Your task to perform on an android device: toggle pop-ups in chrome Image 0: 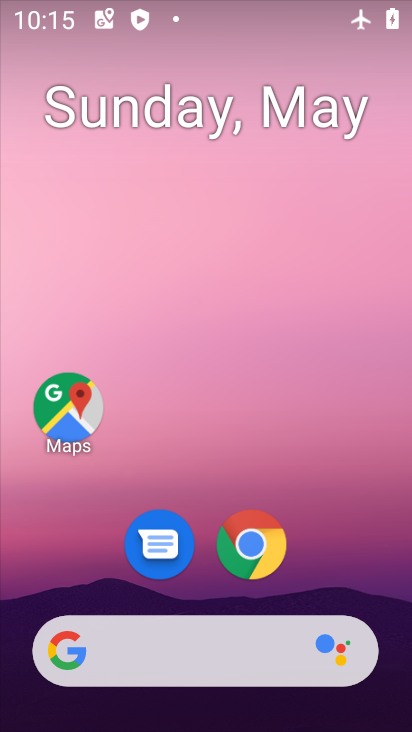
Step 0: drag from (330, 606) to (312, 274)
Your task to perform on an android device: toggle pop-ups in chrome Image 1: 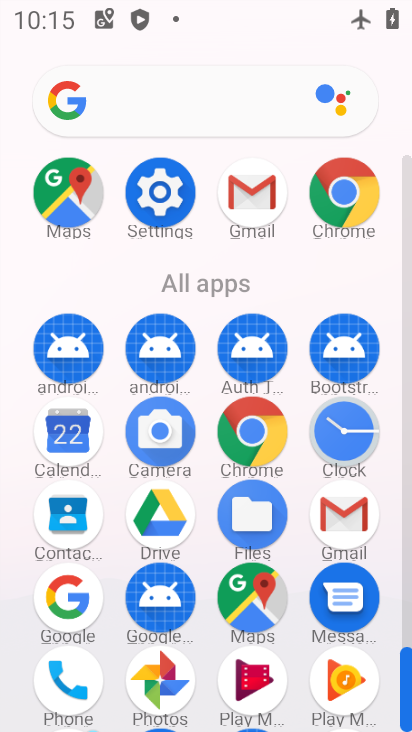
Step 1: click (137, 193)
Your task to perform on an android device: toggle pop-ups in chrome Image 2: 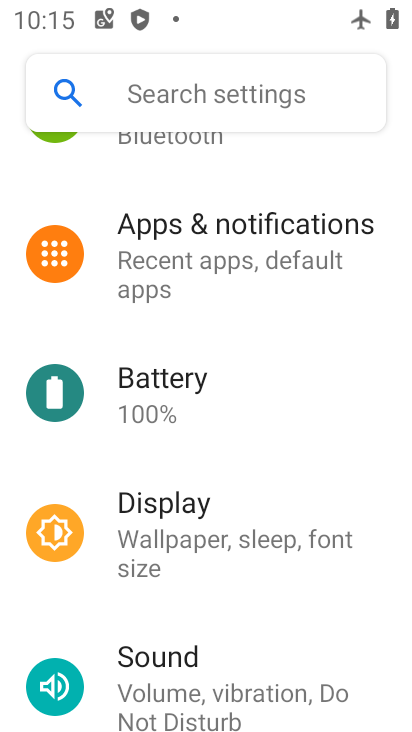
Step 2: press home button
Your task to perform on an android device: toggle pop-ups in chrome Image 3: 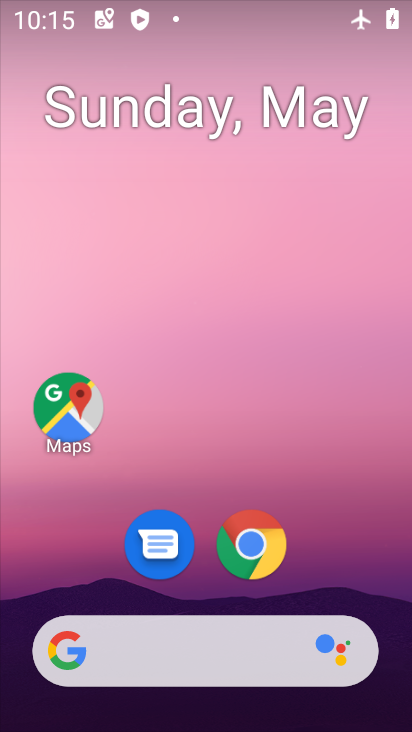
Step 3: drag from (276, 386) to (288, 210)
Your task to perform on an android device: toggle pop-ups in chrome Image 4: 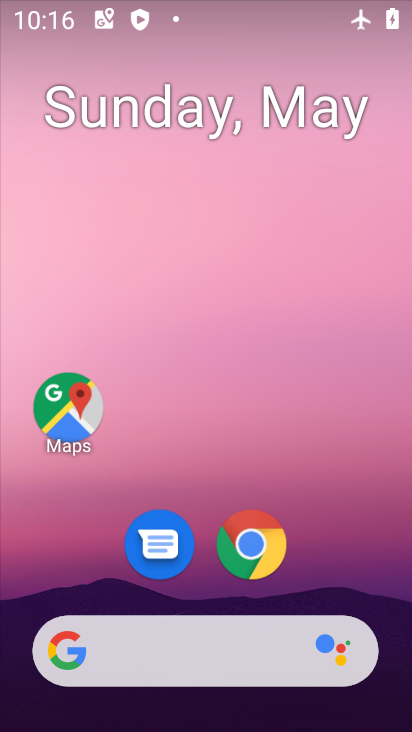
Step 4: click (254, 556)
Your task to perform on an android device: toggle pop-ups in chrome Image 5: 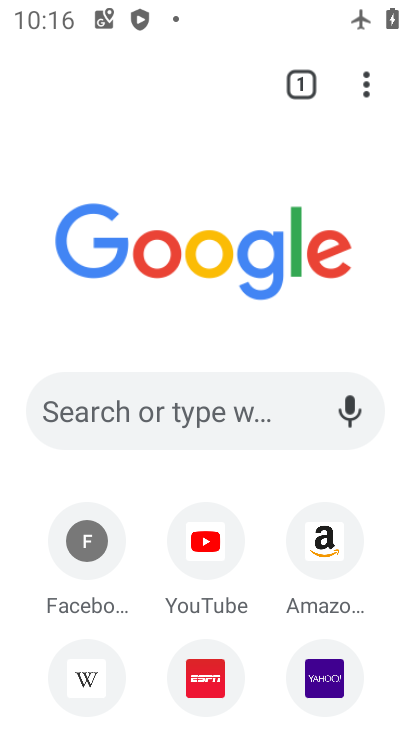
Step 5: click (373, 80)
Your task to perform on an android device: toggle pop-ups in chrome Image 6: 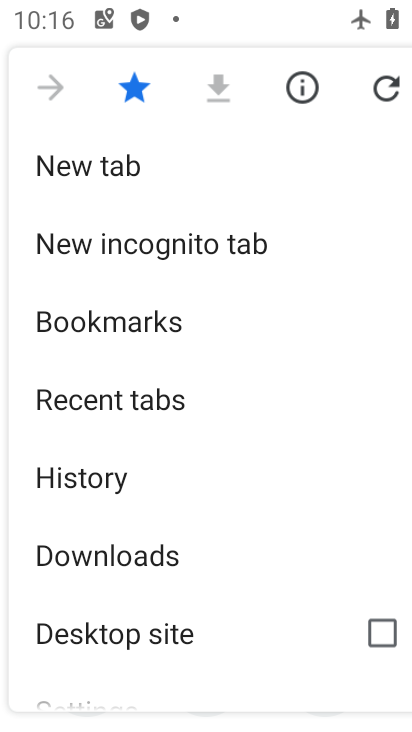
Step 6: drag from (128, 604) to (166, 324)
Your task to perform on an android device: toggle pop-ups in chrome Image 7: 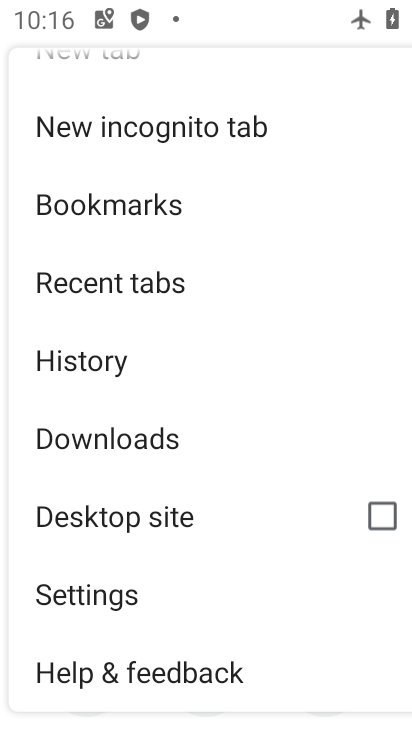
Step 7: click (117, 572)
Your task to perform on an android device: toggle pop-ups in chrome Image 8: 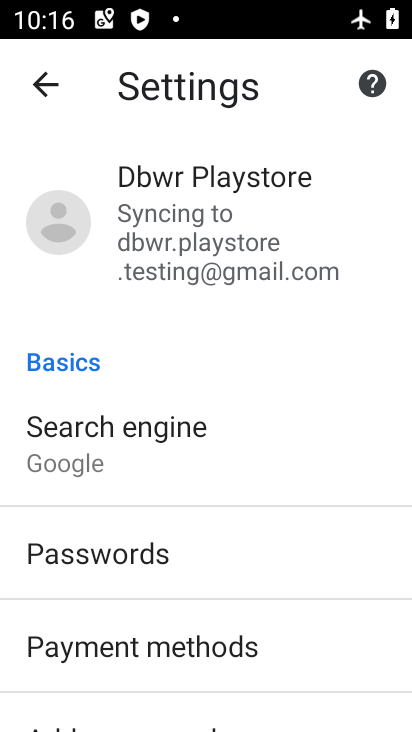
Step 8: drag from (191, 614) to (217, 198)
Your task to perform on an android device: toggle pop-ups in chrome Image 9: 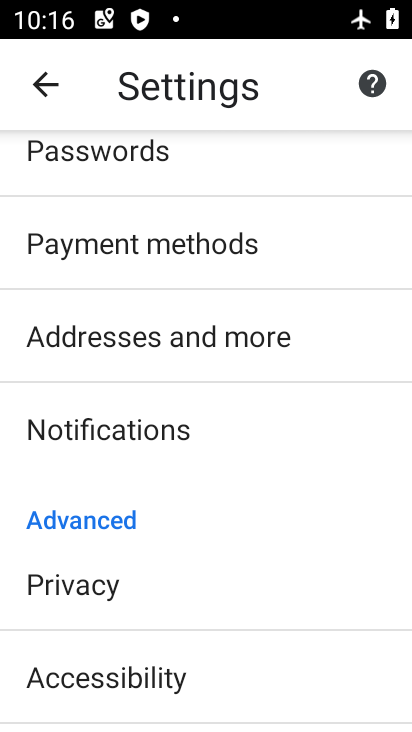
Step 9: drag from (150, 663) to (218, 251)
Your task to perform on an android device: toggle pop-ups in chrome Image 10: 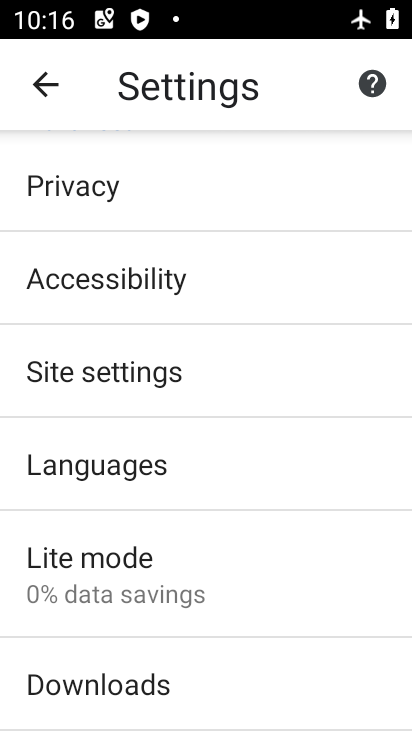
Step 10: click (151, 374)
Your task to perform on an android device: toggle pop-ups in chrome Image 11: 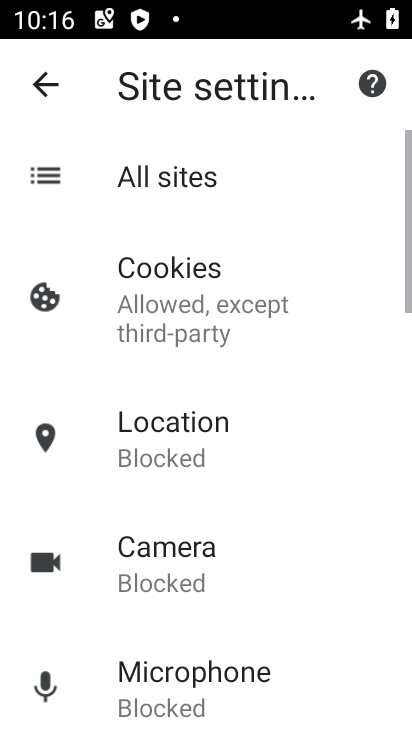
Step 11: drag from (165, 488) to (182, 235)
Your task to perform on an android device: toggle pop-ups in chrome Image 12: 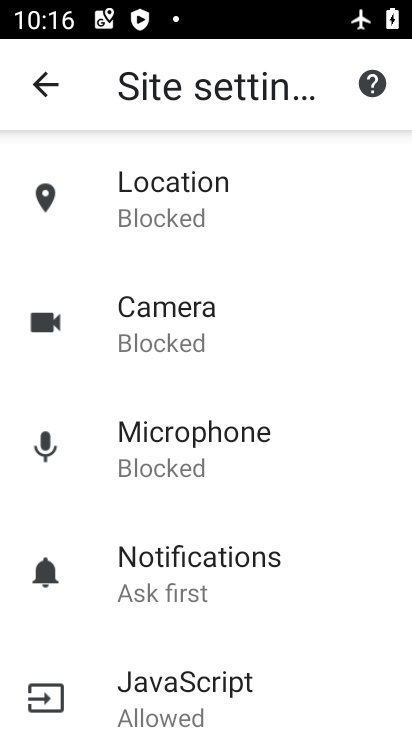
Step 12: drag from (168, 708) to (210, 273)
Your task to perform on an android device: toggle pop-ups in chrome Image 13: 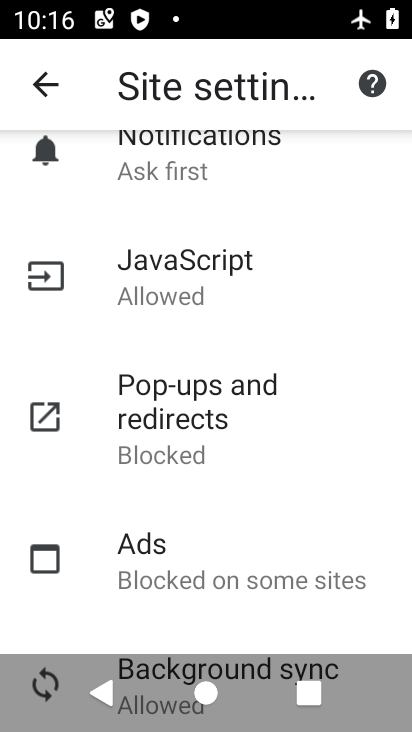
Step 13: click (191, 417)
Your task to perform on an android device: toggle pop-ups in chrome Image 14: 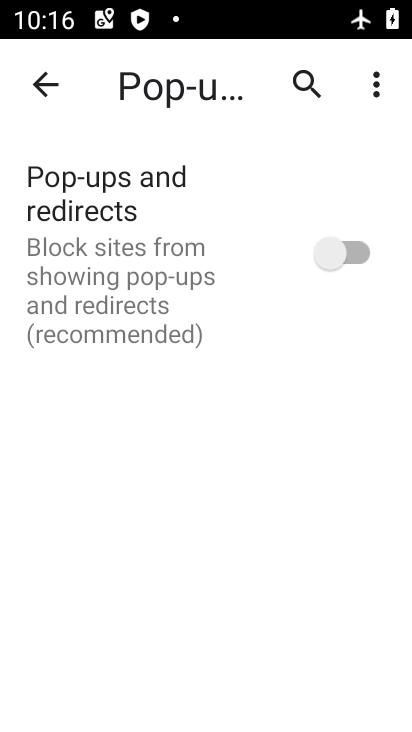
Step 14: click (332, 256)
Your task to perform on an android device: toggle pop-ups in chrome Image 15: 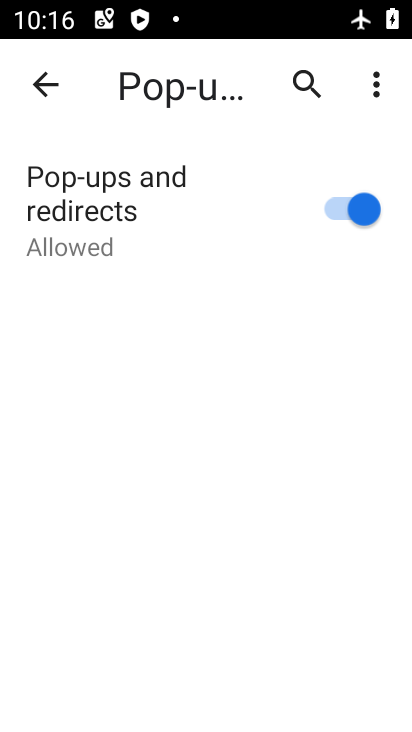
Step 15: task complete